Your task to perform on an android device: snooze an email in the gmail app Image 0: 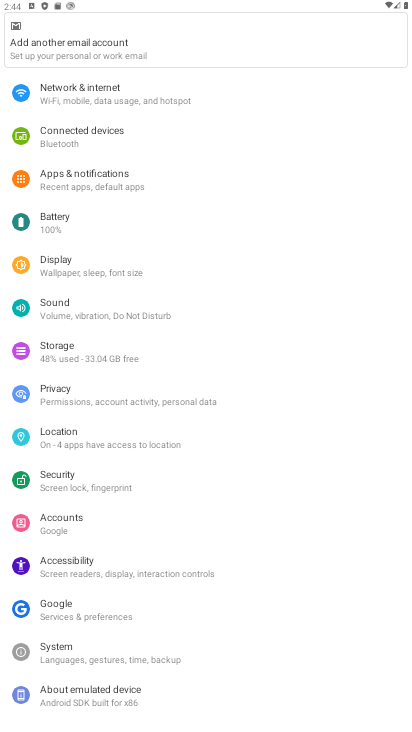
Step 0: press home button
Your task to perform on an android device: snooze an email in the gmail app Image 1: 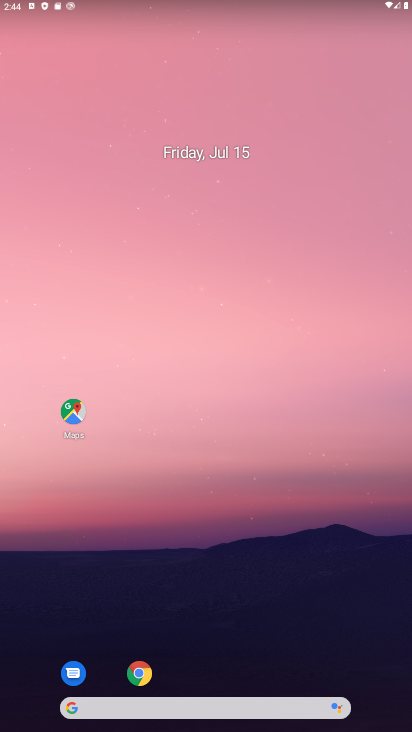
Step 1: drag from (382, 664) to (317, 214)
Your task to perform on an android device: snooze an email in the gmail app Image 2: 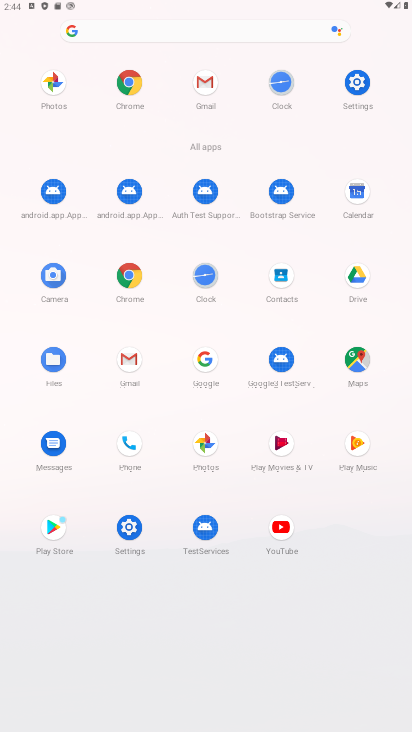
Step 2: click (127, 358)
Your task to perform on an android device: snooze an email in the gmail app Image 3: 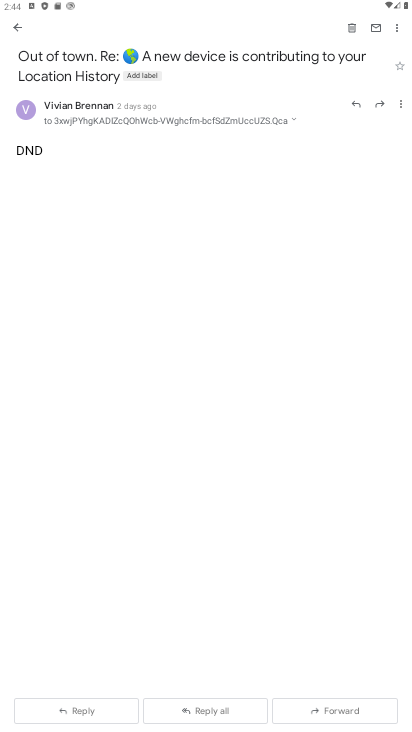
Step 3: click (397, 35)
Your task to perform on an android device: snooze an email in the gmail app Image 4: 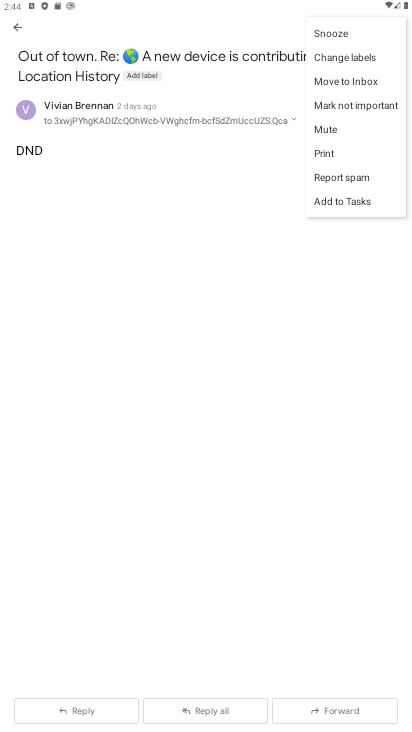
Step 4: click (325, 29)
Your task to perform on an android device: snooze an email in the gmail app Image 5: 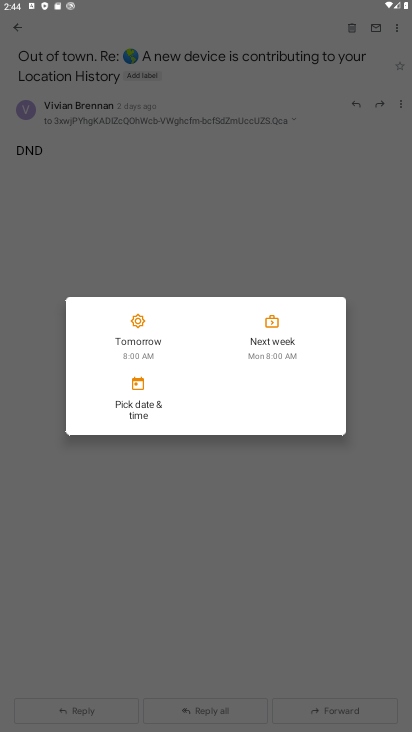
Step 5: click (141, 342)
Your task to perform on an android device: snooze an email in the gmail app Image 6: 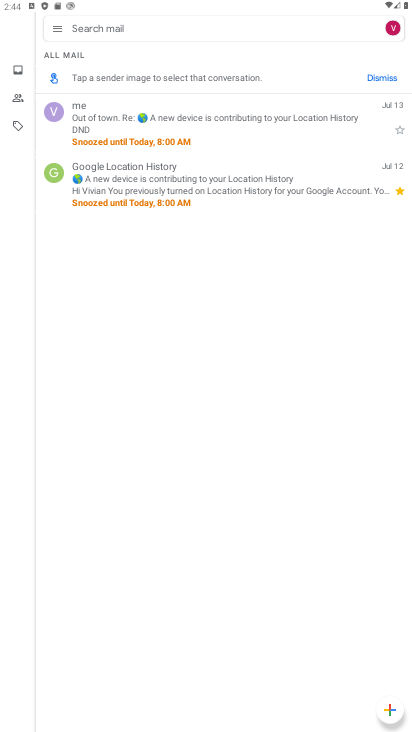
Step 6: task complete